Your task to perform on an android device: Open Google Chrome Image 0: 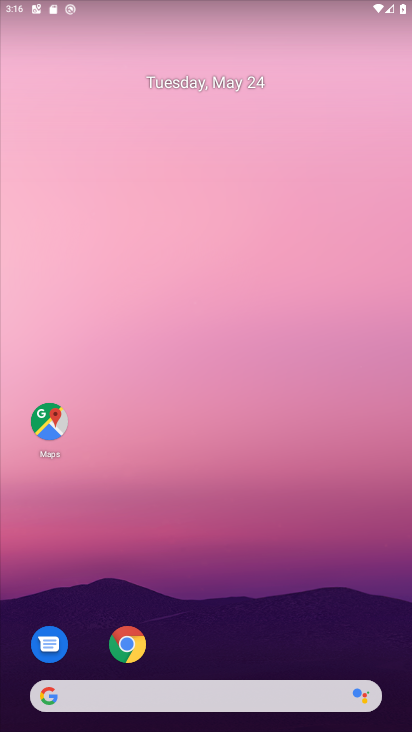
Step 0: click (123, 632)
Your task to perform on an android device: Open Google Chrome Image 1: 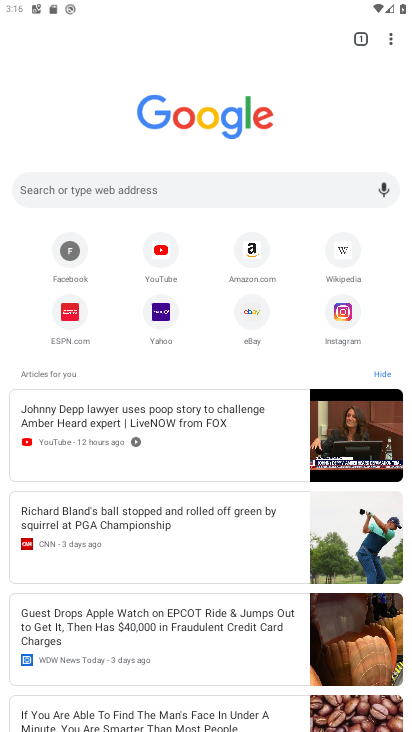
Step 1: task complete